Your task to perform on an android device: allow cookies in the chrome app Image 0: 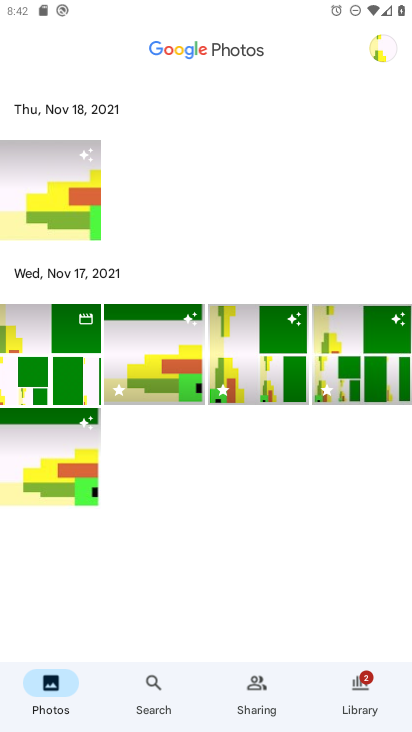
Step 0: press home button
Your task to perform on an android device: allow cookies in the chrome app Image 1: 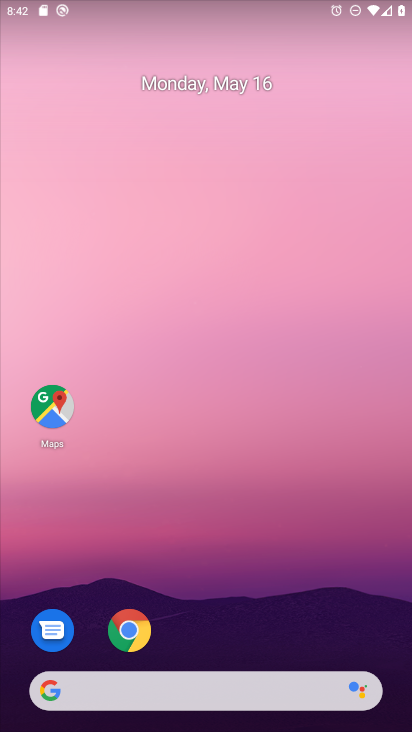
Step 1: click (127, 625)
Your task to perform on an android device: allow cookies in the chrome app Image 2: 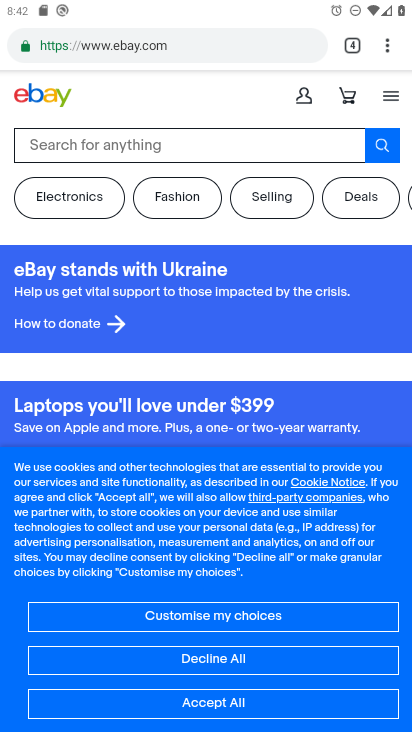
Step 2: click (378, 32)
Your task to perform on an android device: allow cookies in the chrome app Image 3: 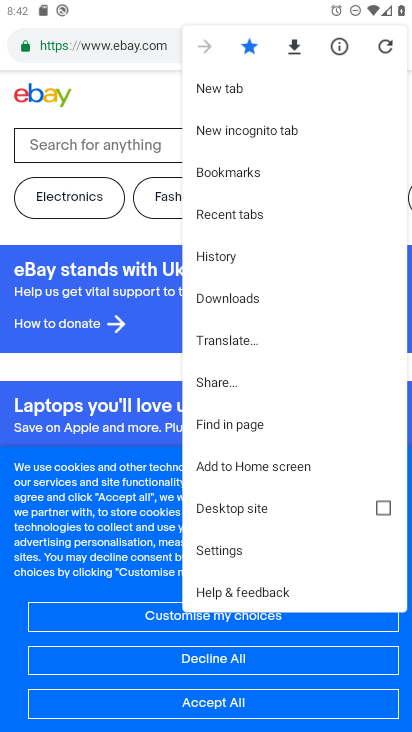
Step 3: drag from (288, 530) to (290, 210)
Your task to perform on an android device: allow cookies in the chrome app Image 4: 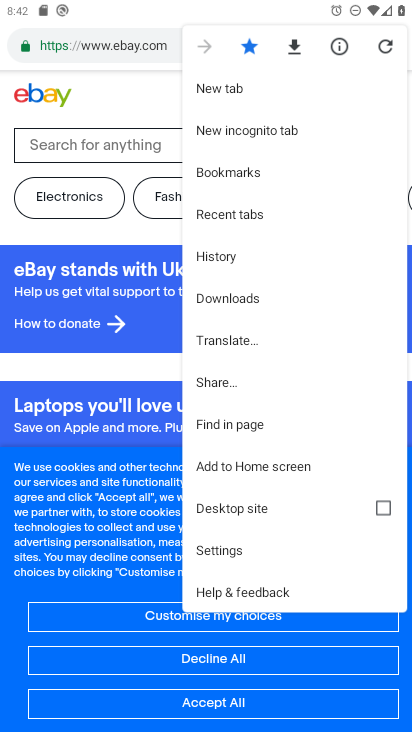
Step 4: click (273, 546)
Your task to perform on an android device: allow cookies in the chrome app Image 5: 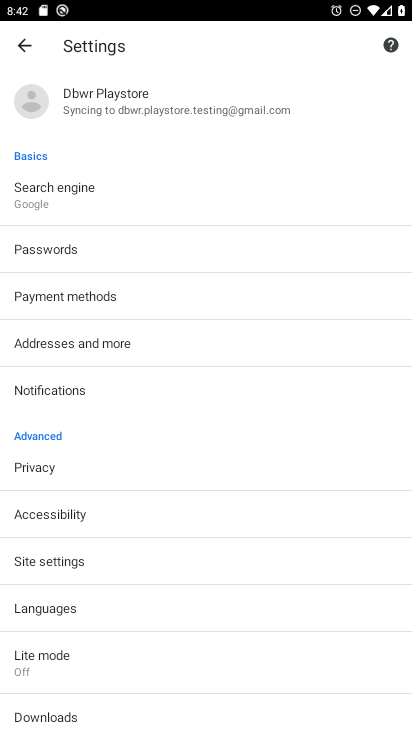
Step 5: click (188, 554)
Your task to perform on an android device: allow cookies in the chrome app Image 6: 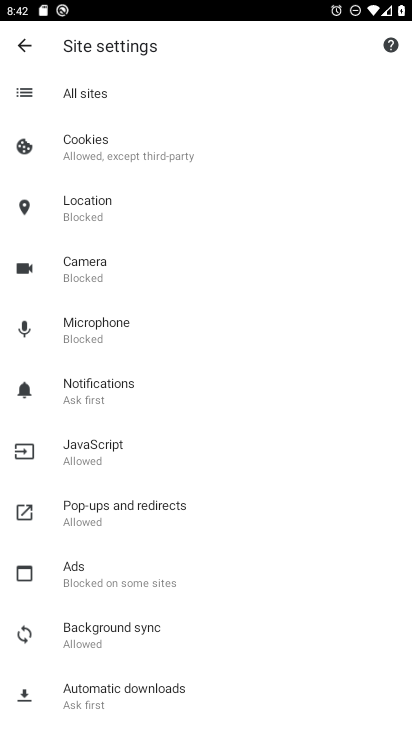
Step 6: click (157, 162)
Your task to perform on an android device: allow cookies in the chrome app Image 7: 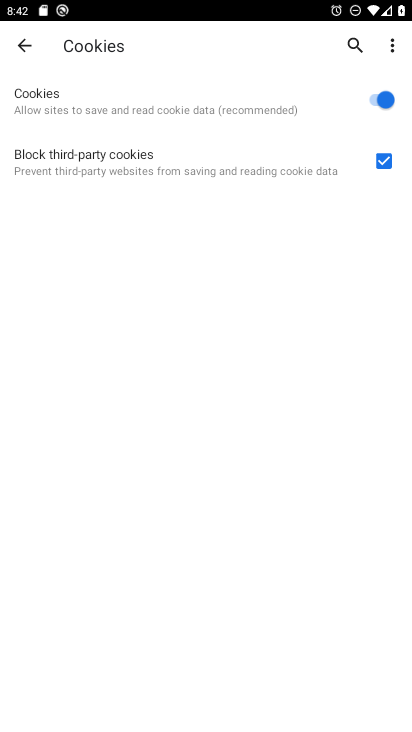
Step 7: task complete